Your task to perform on an android device: Open the web browser Image 0: 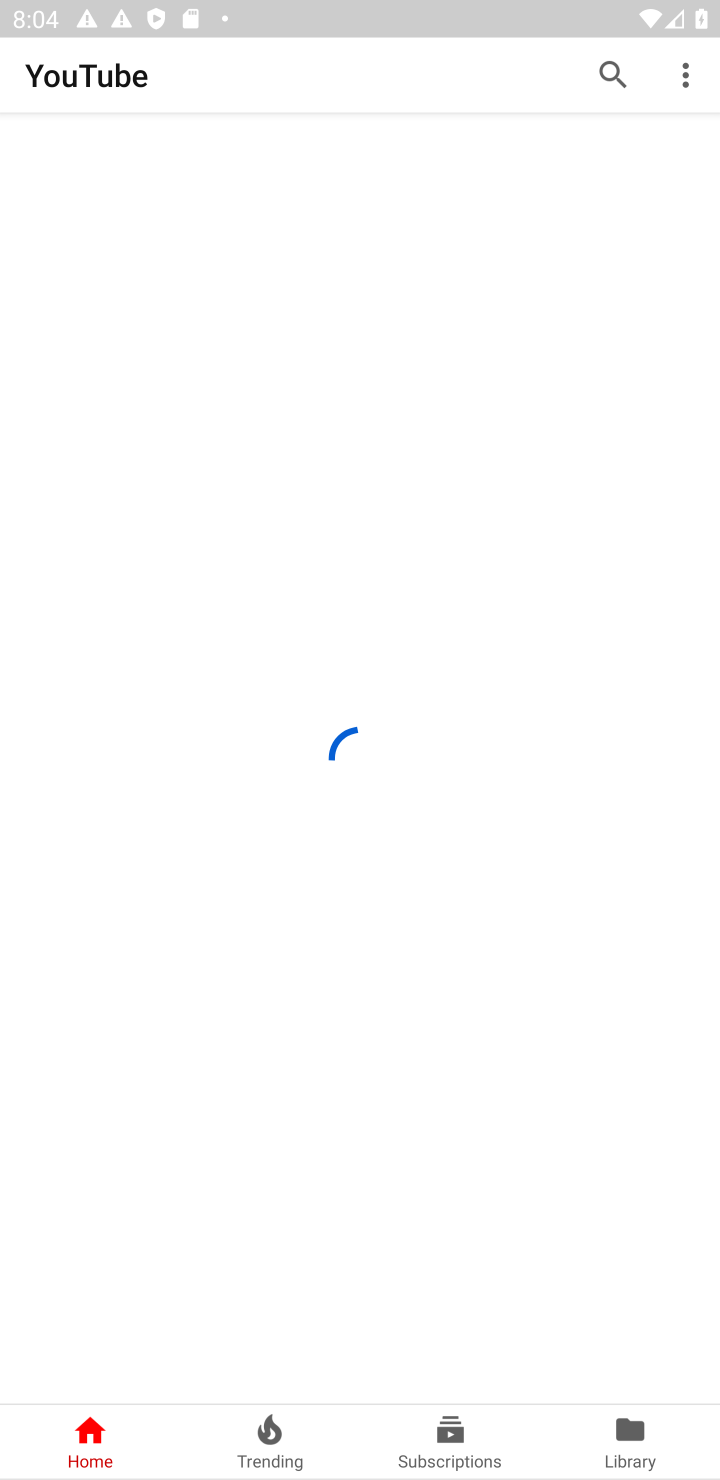
Step 0: press home button
Your task to perform on an android device: Open the web browser Image 1: 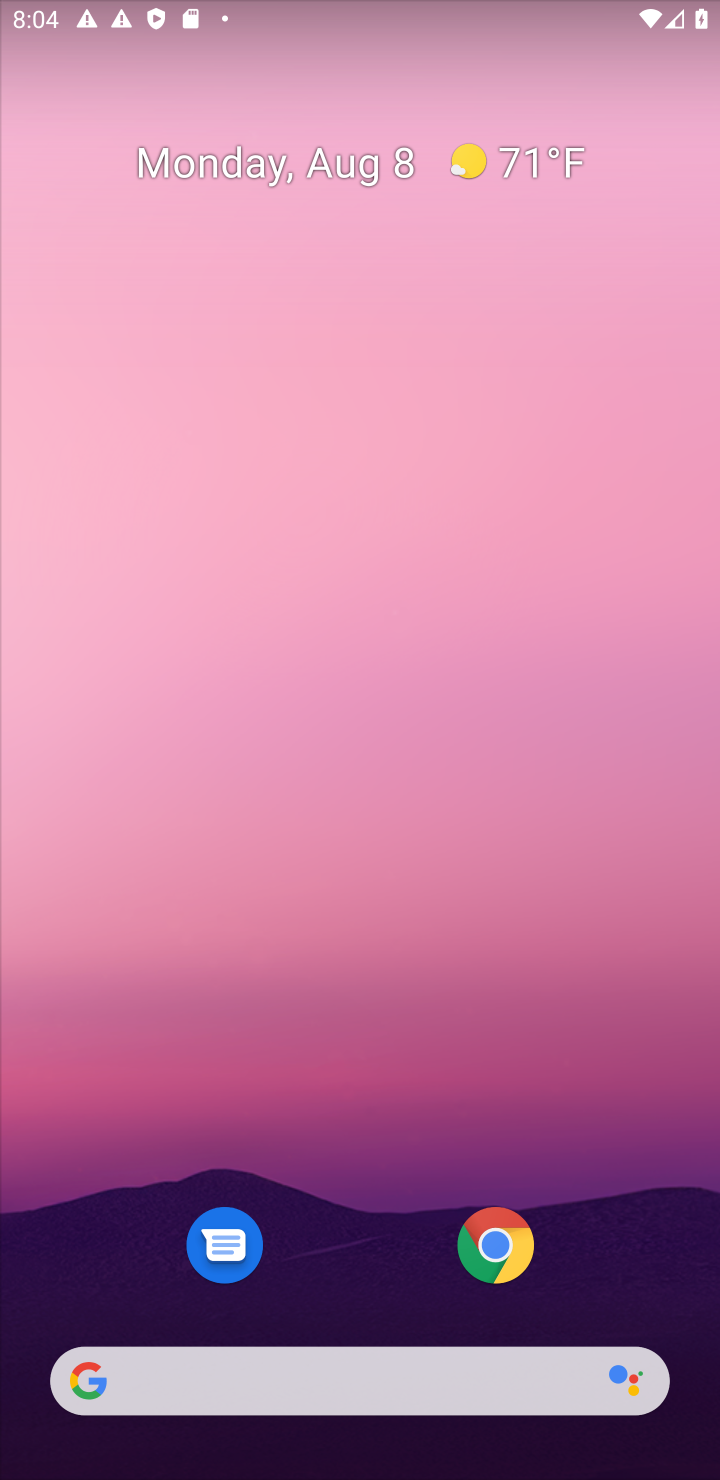
Step 1: click (494, 1240)
Your task to perform on an android device: Open the web browser Image 2: 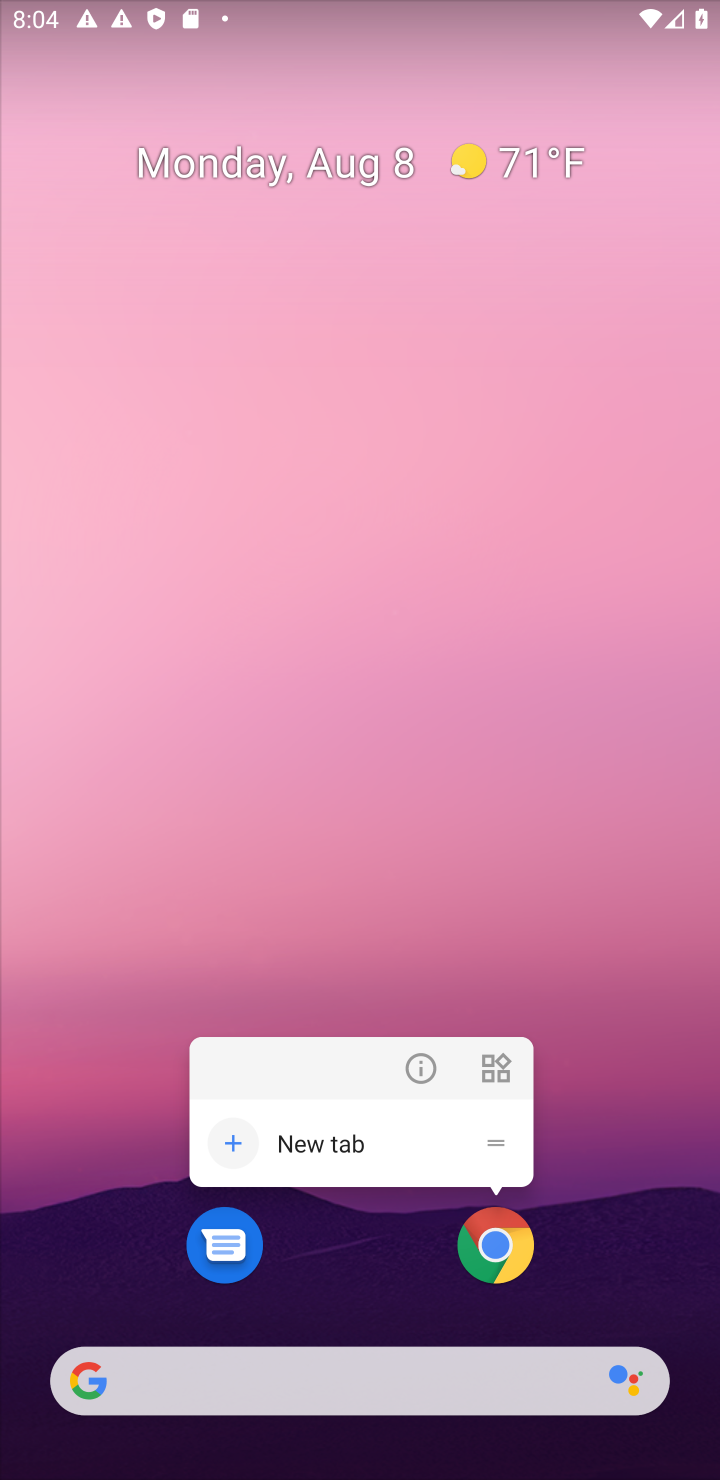
Step 2: click (494, 1240)
Your task to perform on an android device: Open the web browser Image 3: 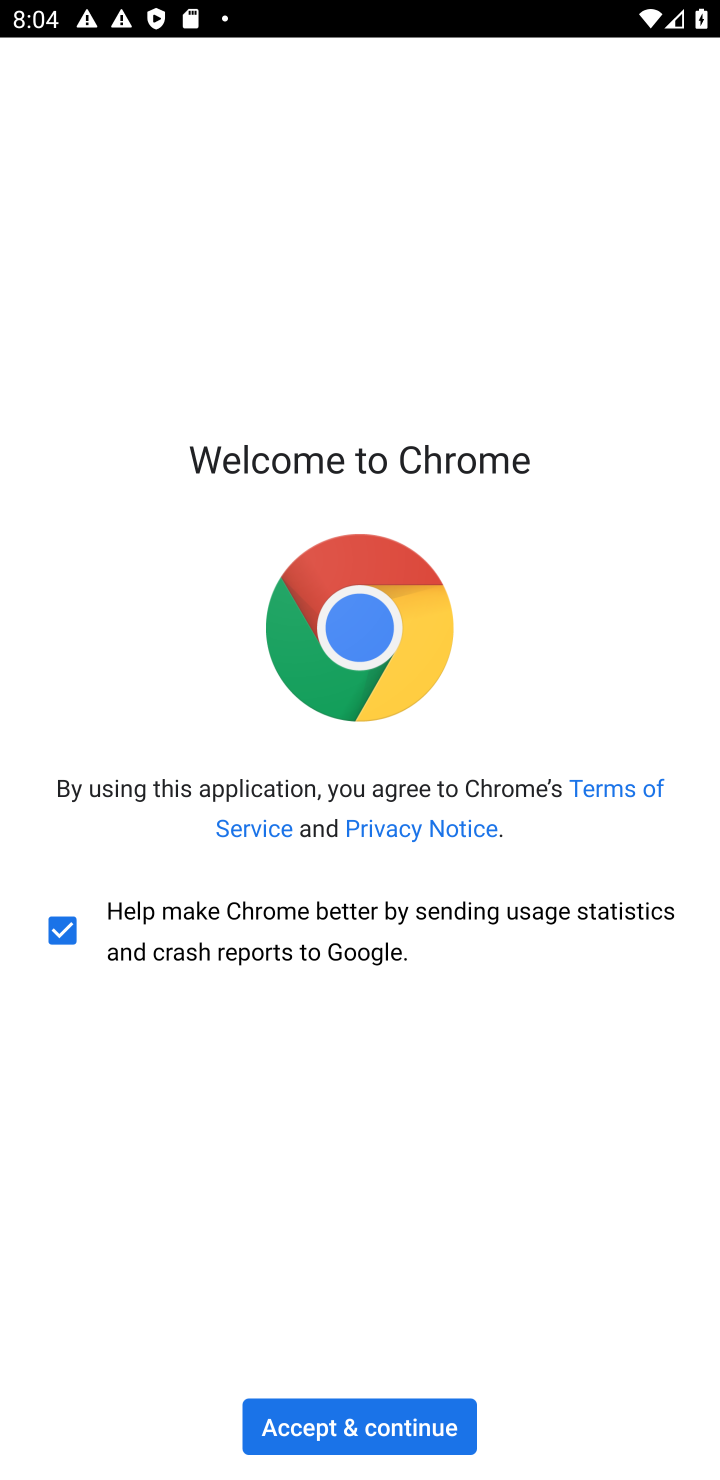
Step 3: click (401, 1436)
Your task to perform on an android device: Open the web browser Image 4: 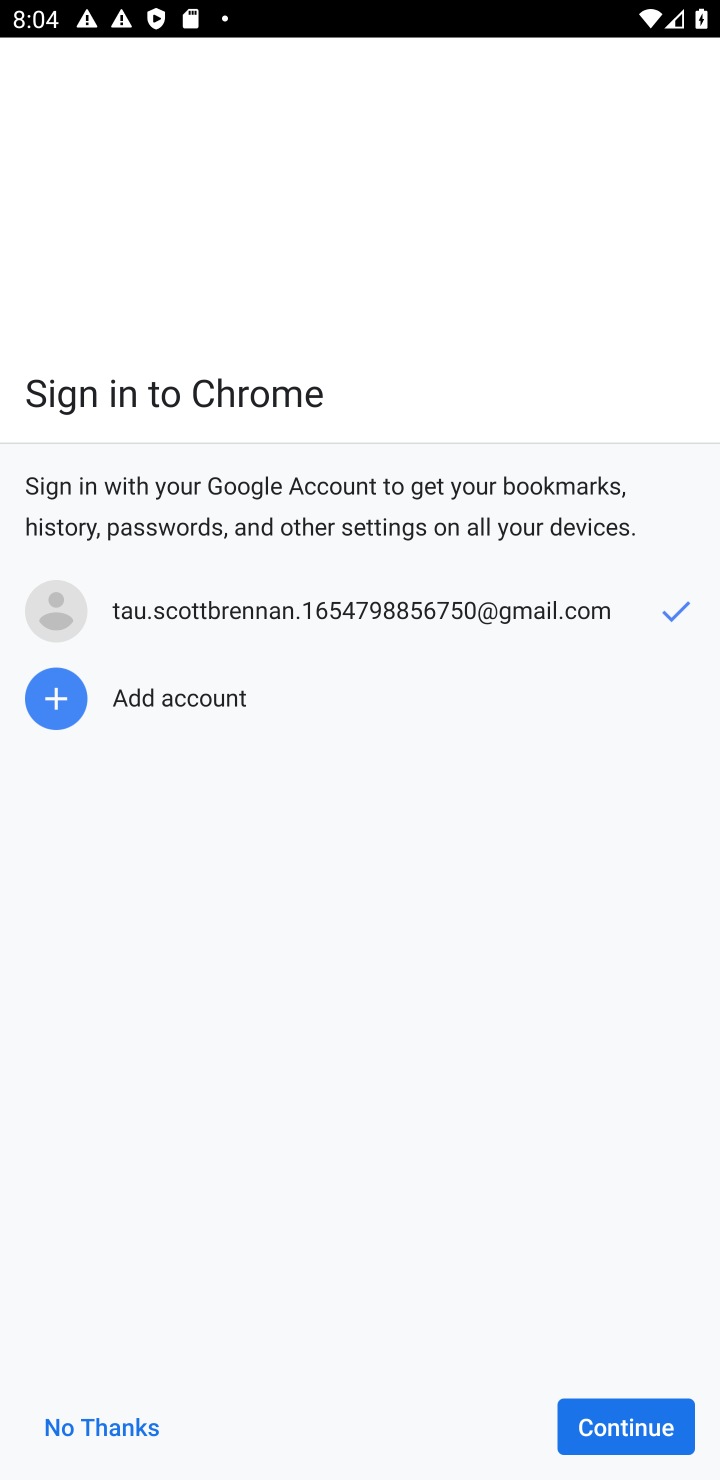
Step 4: click (632, 1410)
Your task to perform on an android device: Open the web browser Image 5: 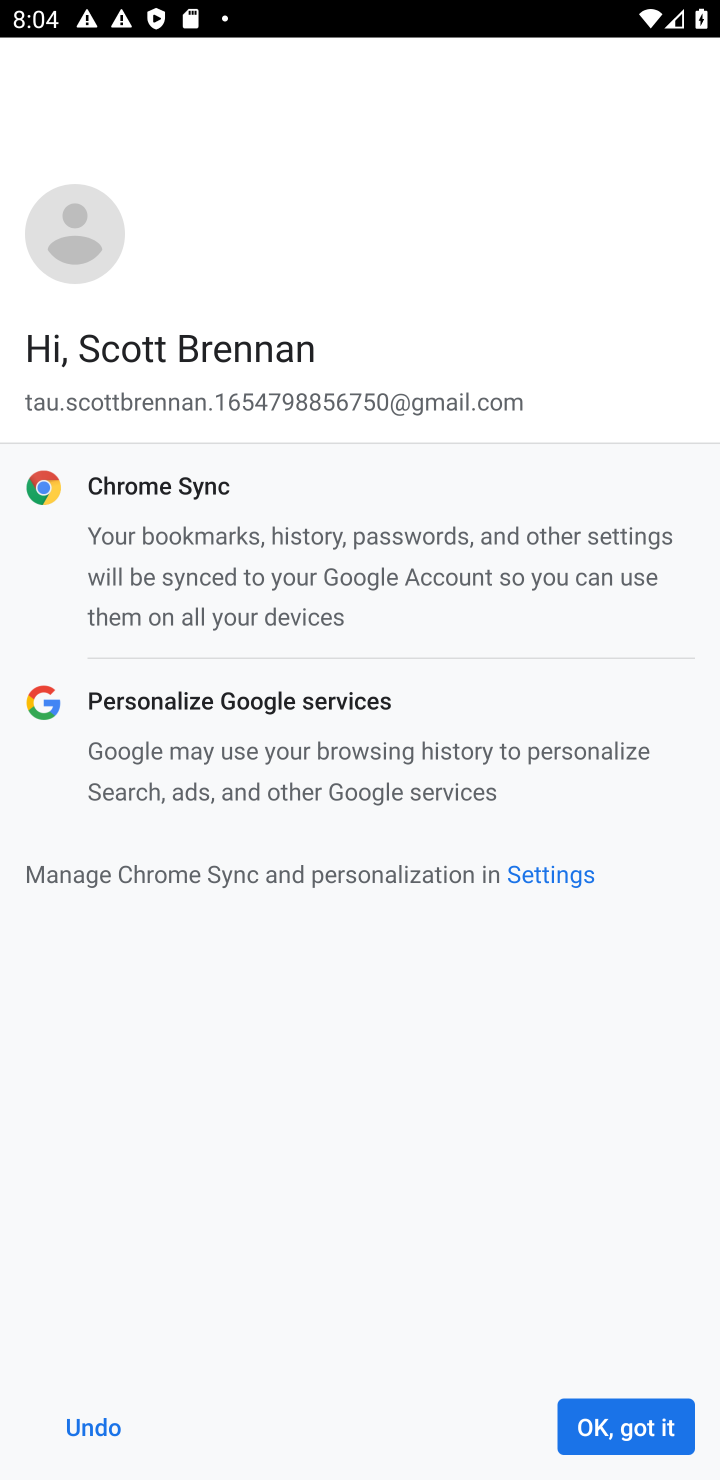
Step 5: click (636, 1416)
Your task to perform on an android device: Open the web browser Image 6: 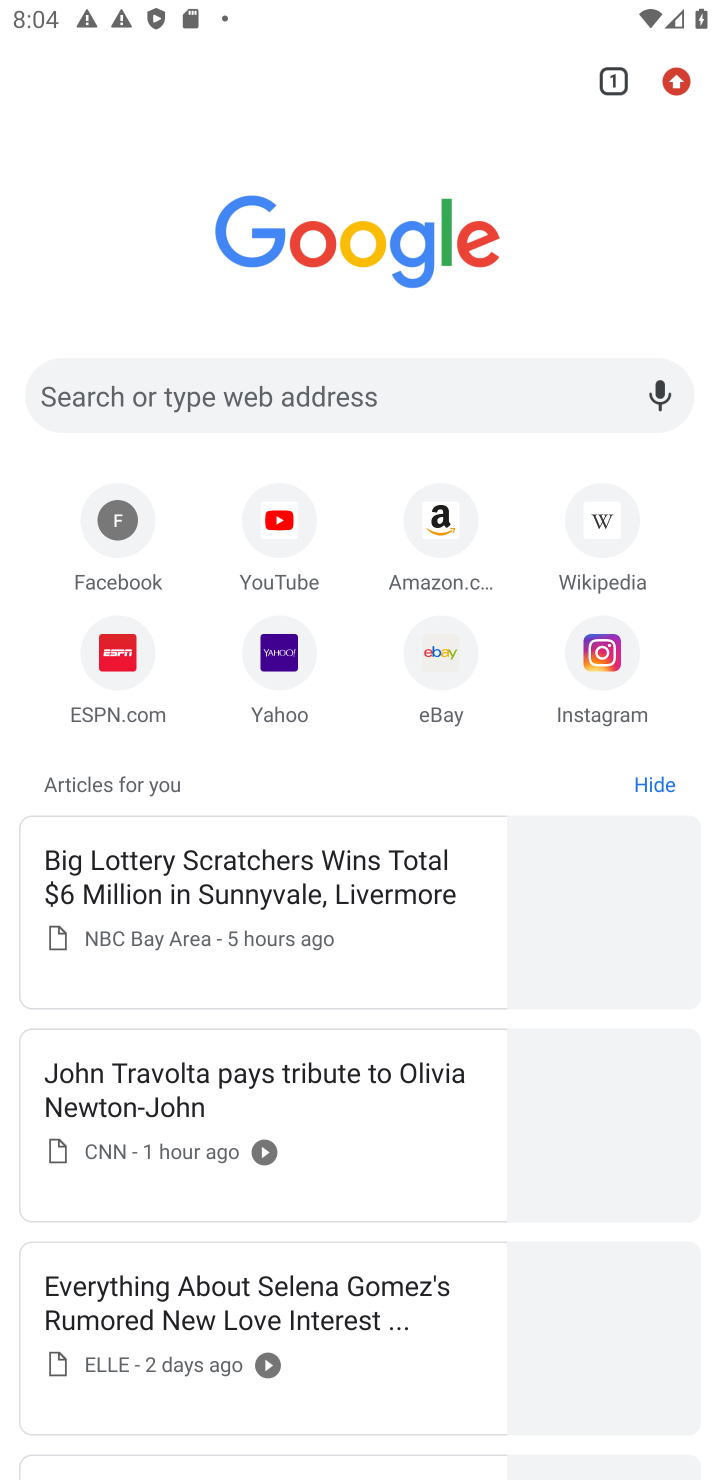
Step 6: task complete